Your task to perform on an android device: Open calendar and show me the fourth week of next month Image 0: 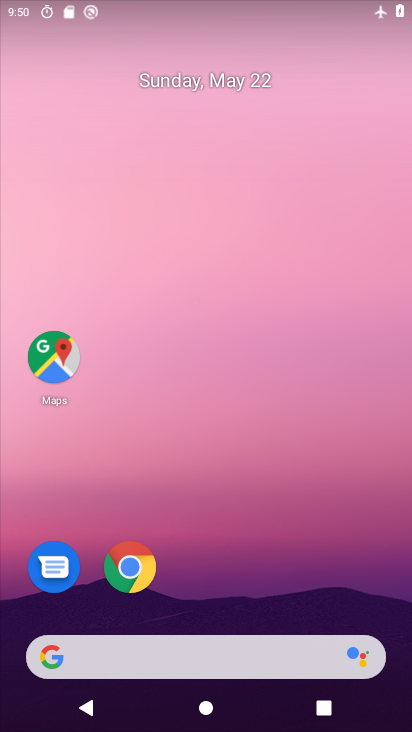
Step 0: press home button
Your task to perform on an android device: Open calendar and show me the fourth week of next month Image 1: 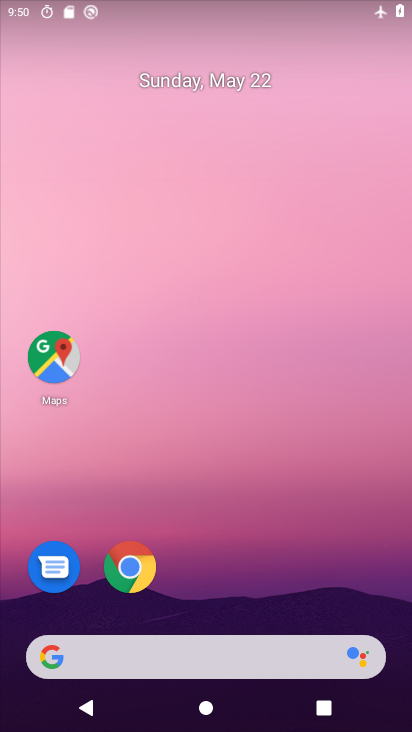
Step 1: drag from (222, 621) to (212, 81)
Your task to perform on an android device: Open calendar and show me the fourth week of next month Image 2: 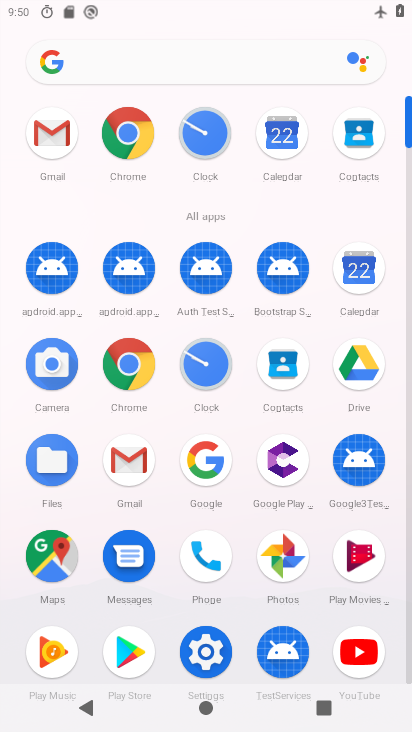
Step 2: click (359, 264)
Your task to perform on an android device: Open calendar and show me the fourth week of next month Image 3: 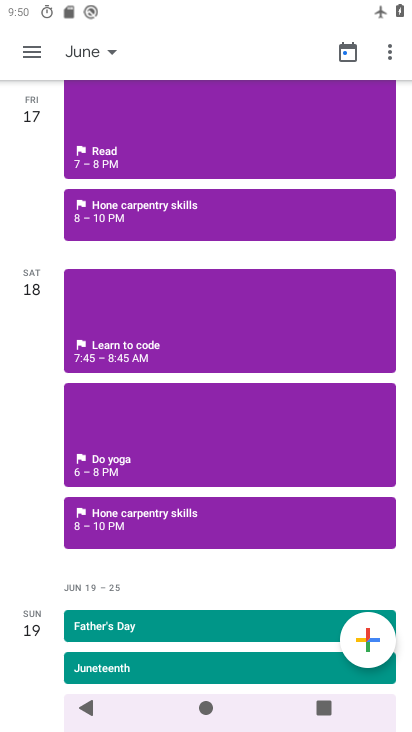
Step 3: click (114, 50)
Your task to perform on an android device: Open calendar and show me the fourth week of next month Image 4: 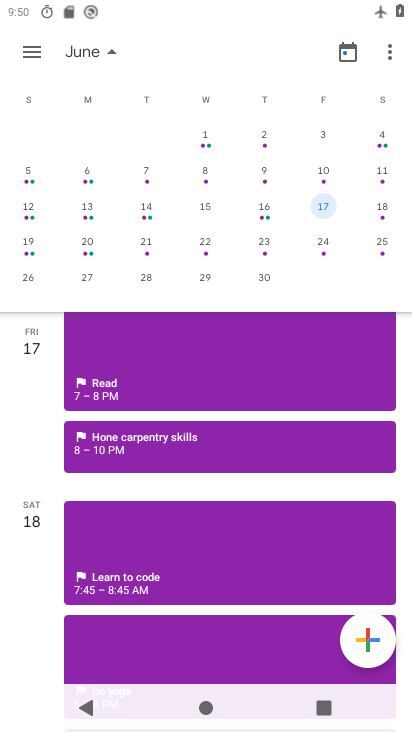
Step 4: click (26, 247)
Your task to perform on an android device: Open calendar and show me the fourth week of next month Image 5: 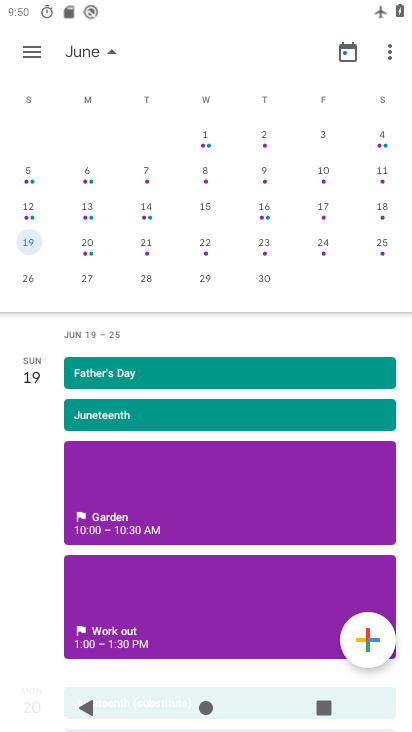
Step 5: click (108, 47)
Your task to perform on an android device: Open calendar and show me the fourth week of next month Image 6: 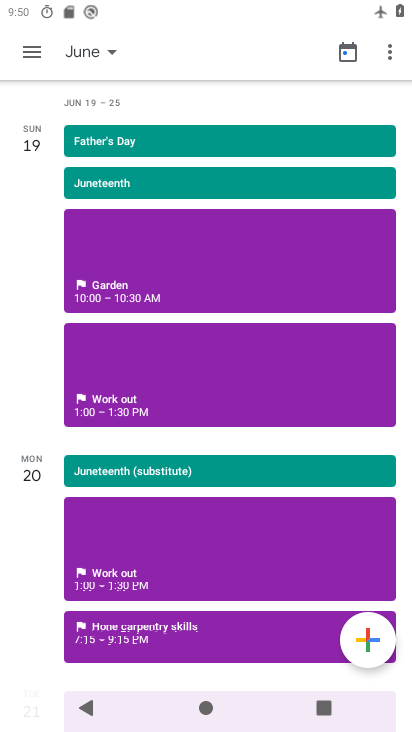
Step 6: task complete